Your task to perform on an android device: change notifications settings Image 0: 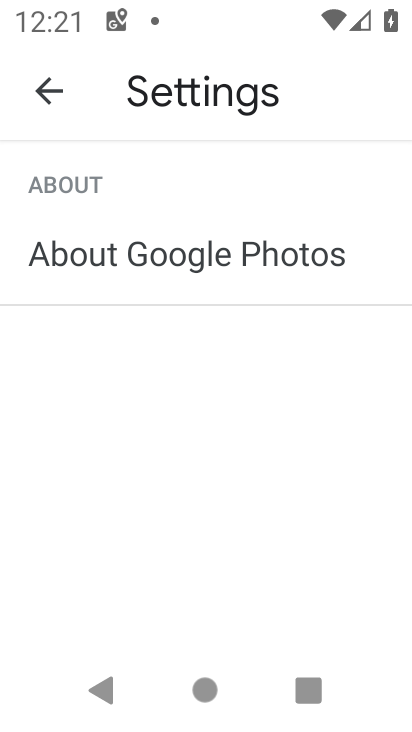
Step 0: press home button
Your task to perform on an android device: change notifications settings Image 1: 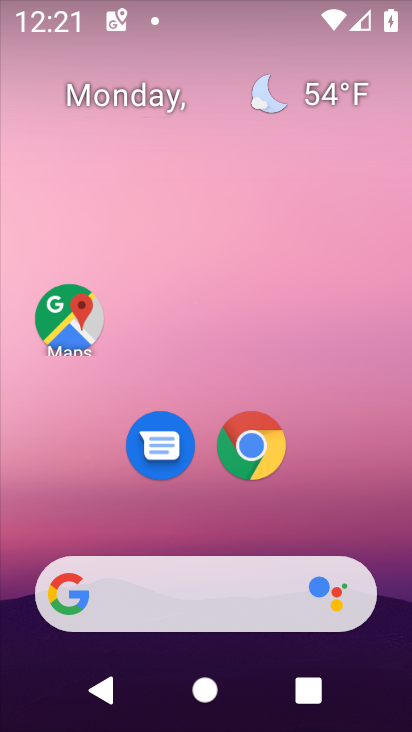
Step 1: drag from (361, 451) to (369, 109)
Your task to perform on an android device: change notifications settings Image 2: 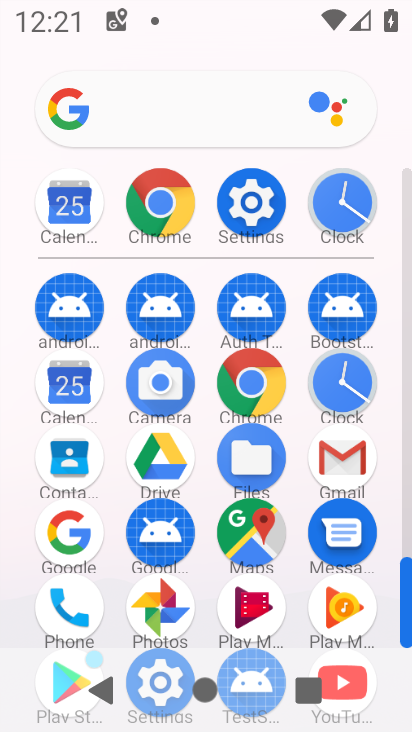
Step 2: click (252, 206)
Your task to perform on an android device: change notifications settings Image 3: 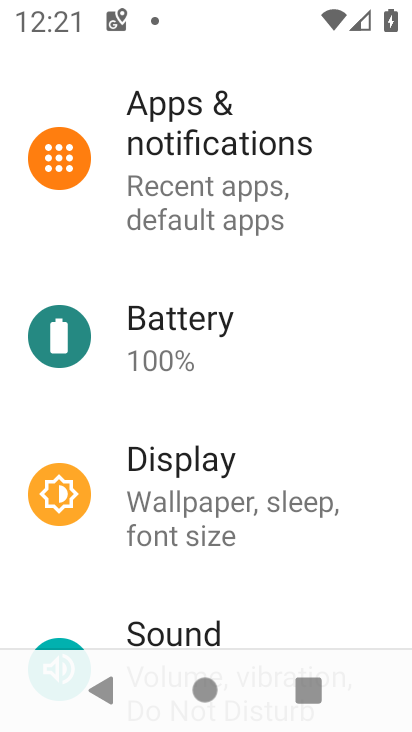
Step 3: drag from (310, 574) to (325, 246)
Your task to perform on an android device: change notifications settings Image 4: 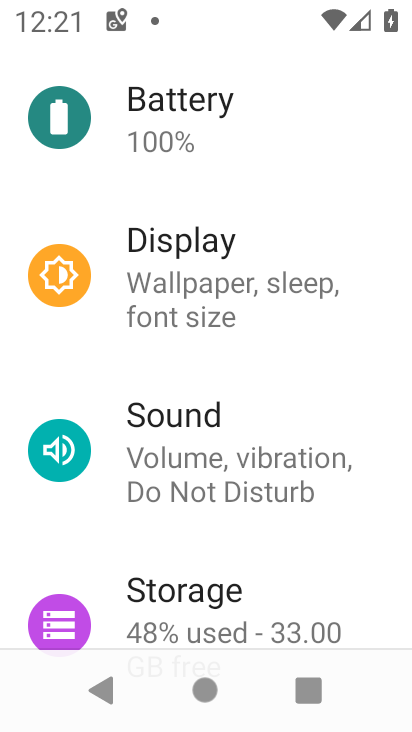
Step 4: drag from (332, 530) to (328, 238)
Your task to perform on an android device: change notifications settings Image 5: 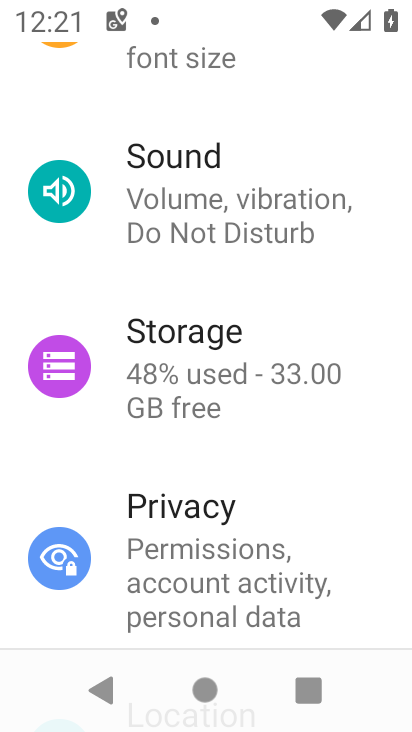
Step 5: drag from (322, 351) to (317, 295)
Your task to perform on an android device: change notifications settings Image 6: 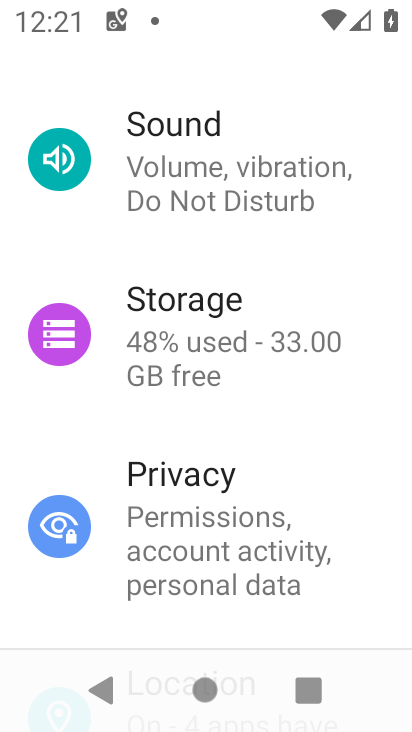
Step 6: drag from (328, 587) to (309, 264)
Your task to perform on an android device: change notifications settings Image 7: 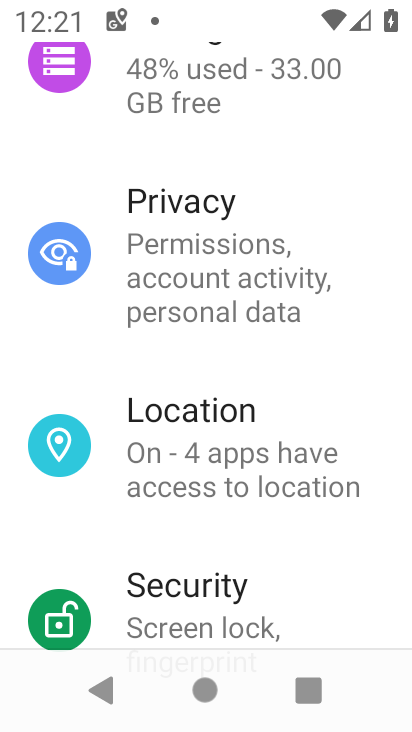
Step 7: drag from (314, 555) to (319, 289)
Your task to perform on an android device: change notifications settings Image 8: 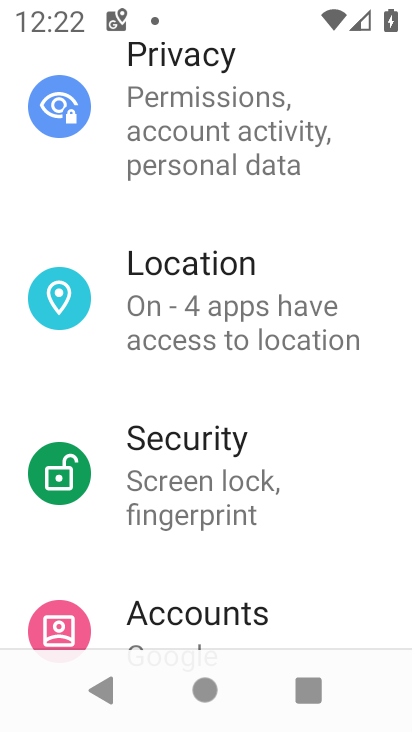
Step 8: drag from (296, 235) to (316, 554)
Your task to perform on an android device: change notifications settings Image 9: 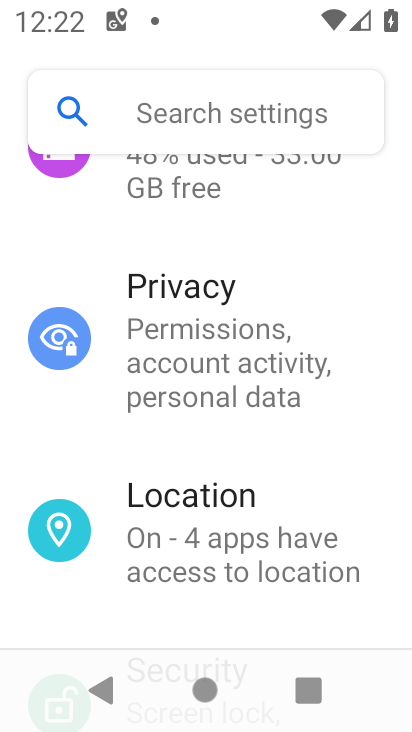
Step 9: drag from (299, 250) to (300, 573)
Your task to perform on an android device: change notifications settings Image 10: 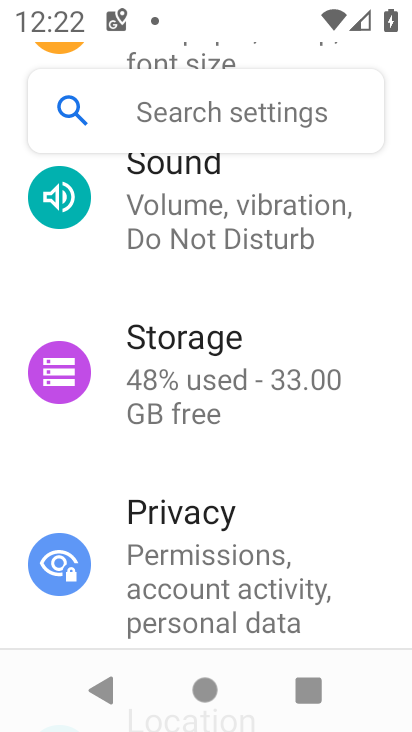
Step 10: drag from (272, 299) to (300, 592)
Your task to perform on an android device: change notifications settings Image 11: 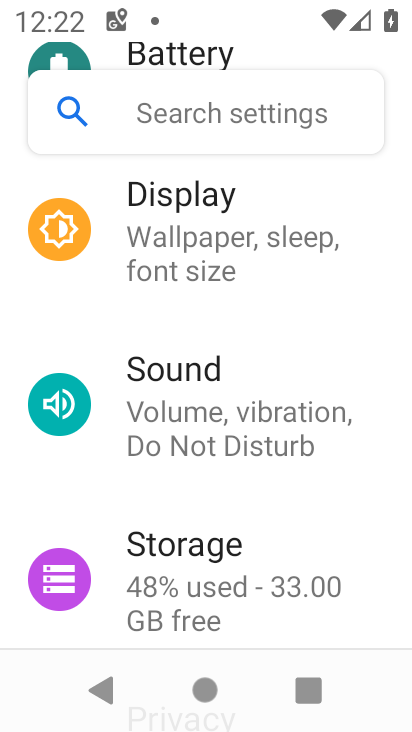
Step 11: drag from (274, 297) to (293, 573)
Your task to perform on an android device: change notifications settings Image 12: 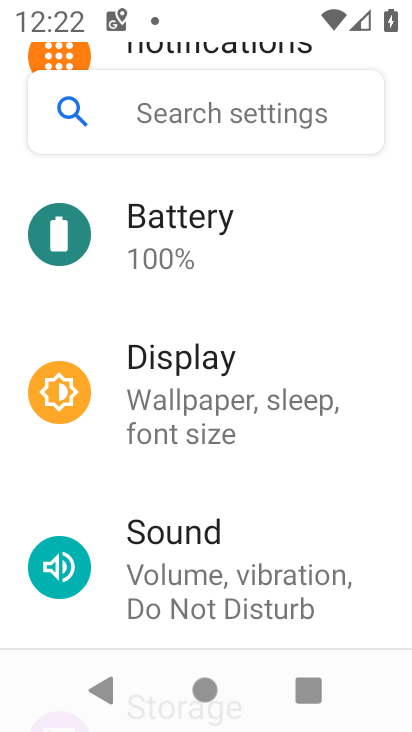
Step 12: drag from (265, 352) to (303, 593)
Your task to perform on an android device: change notifications settings Image 13: 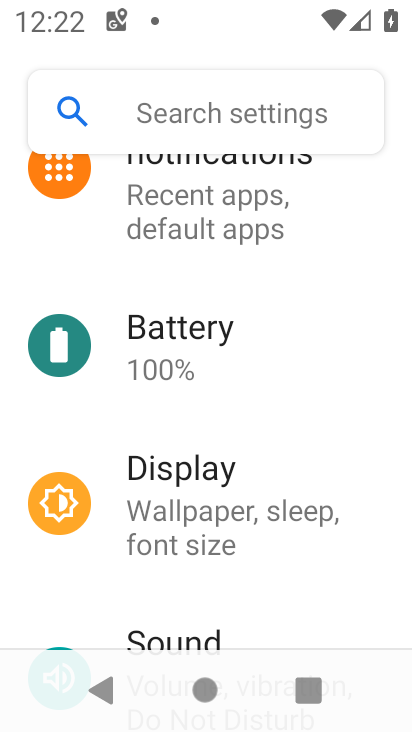
Step 13: drag from (283, 366) to (290, 609)
Your task to perform on an android device: change notifications settings Image 14: 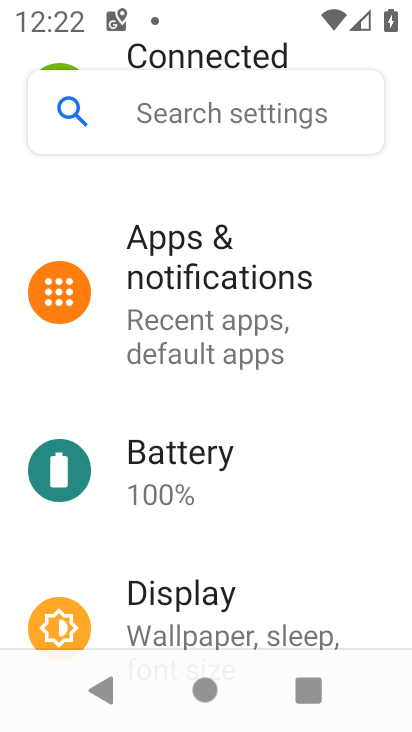
Step 14: click (235, 276)
Your task to perform on an android device: change notifications settings Image 15: 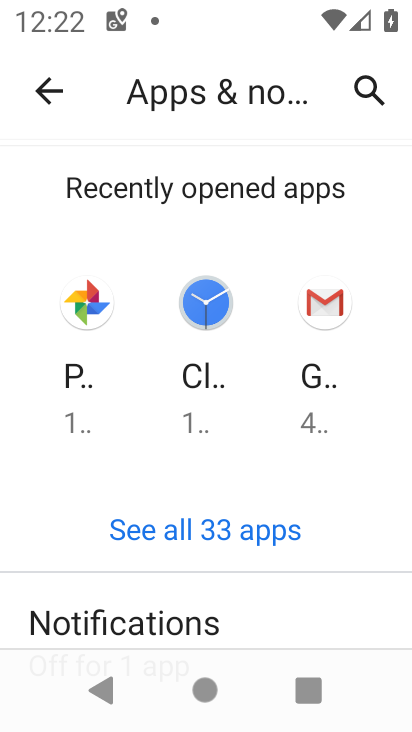
Step 15: drag from (310, 585) to (282, 210)
Your task to perform on an android device: change notifications settings Image 16: 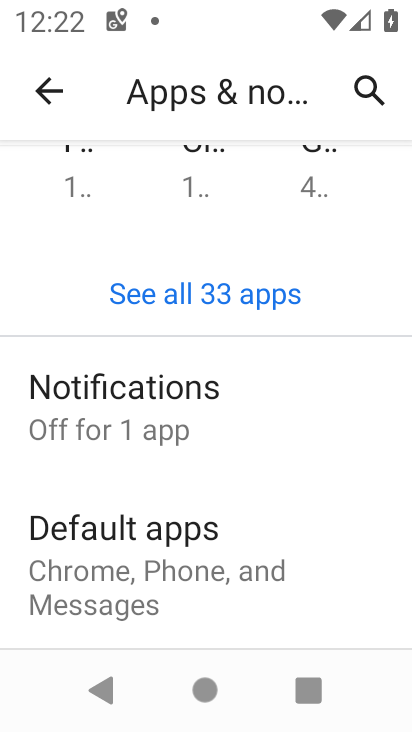
Step 16: click (160, 395)
Your task to perform on an android device: change notifications settings Image 17: 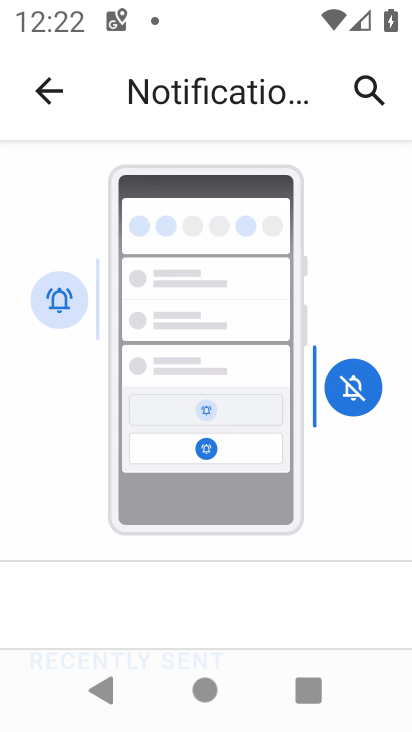
Step 17: drag from (354, 603) to (338, 189)
Your task to perform on an android device: change notifications settings Image 18: 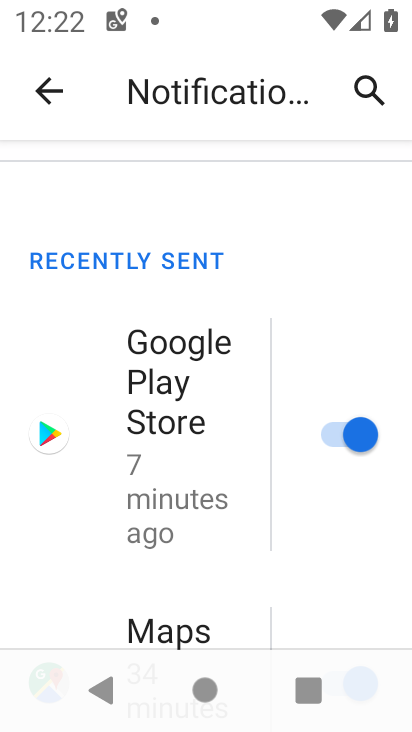
Step 18: drag from (254, 545) to (319, 217)
Your task to perform on an android device: change notifications settings Image 19: 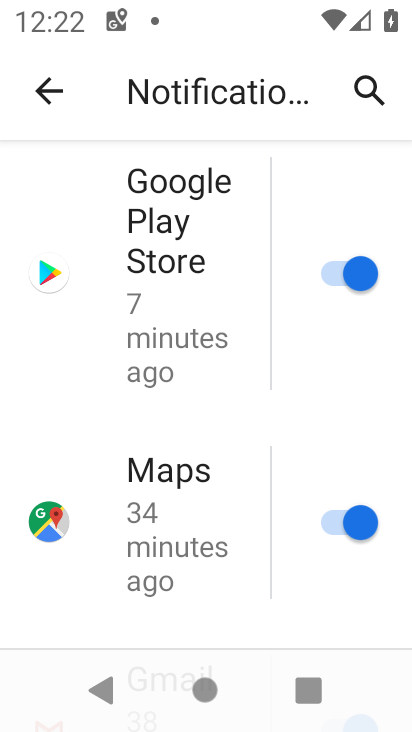
Step 19: drag from (210, 581) to (273, 224)
Your task to perform on an android device: change notifications settings Image 20: 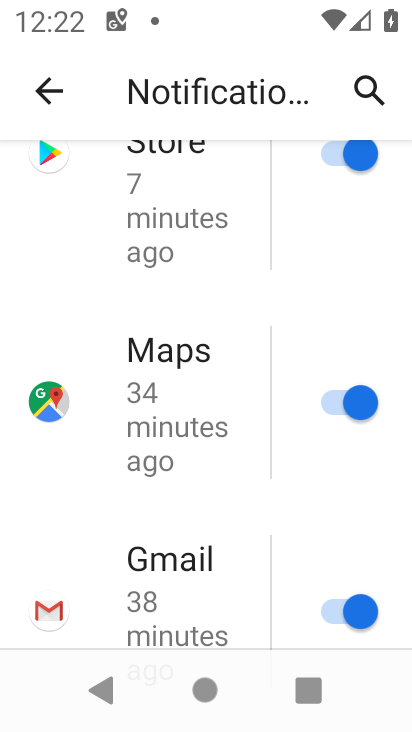
Step 20: drag from (217, 614) to (281, 189)
Your task to perform on an android device: change notifications settings Image 21: 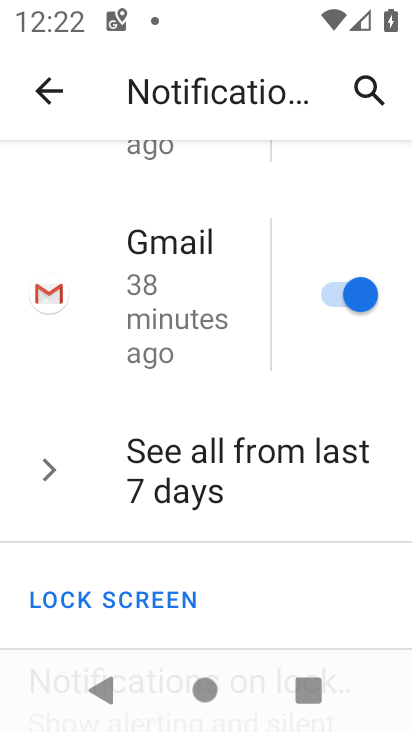
Step 21: drag from (232, 604) to (259, 207)
Your task to perform on an android device: change notifications settings Image 22: 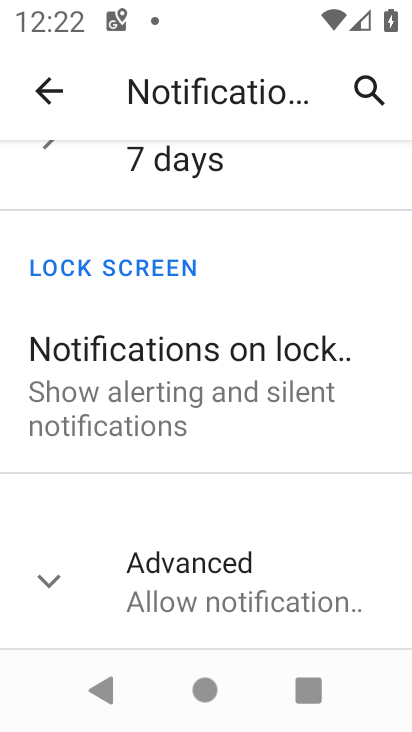
Step 22: click (239, 565)
Your task to perform on an android device: change notifications settings Image 23: 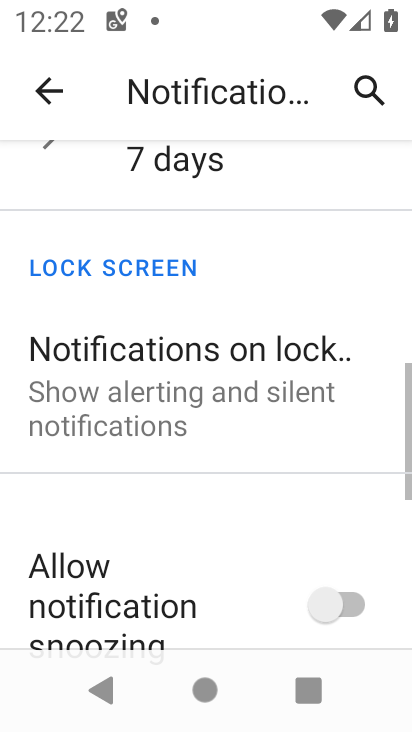
Step 23: task complete